Your task to perform on an android device: open chrome and create a bookmark for the current page Image 0: 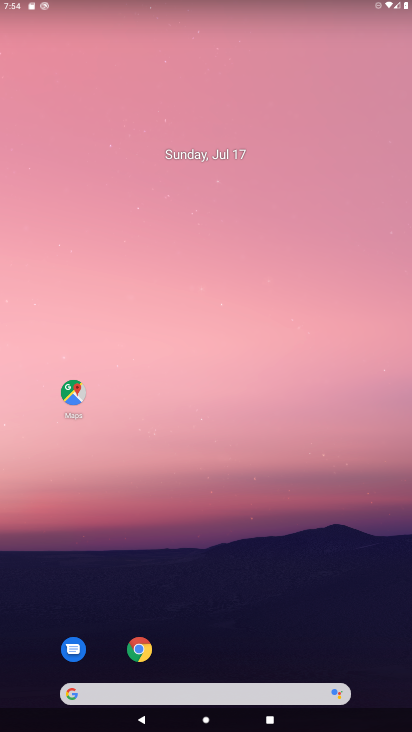
Step 0: drag from (188, 637) to (148, 222)
Your task to perform on an android device: open chrome and create a bookmark for the current page Image 1: 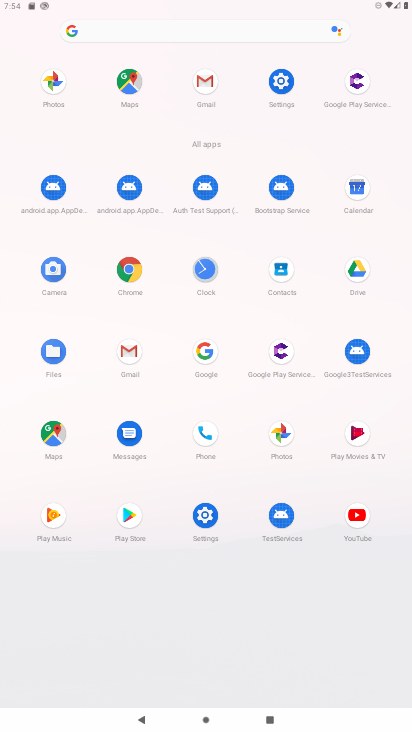
Step 1: click (131, 269)
Your task to perform on an android device: open chrome and create a bookmark for the current page Image 2: 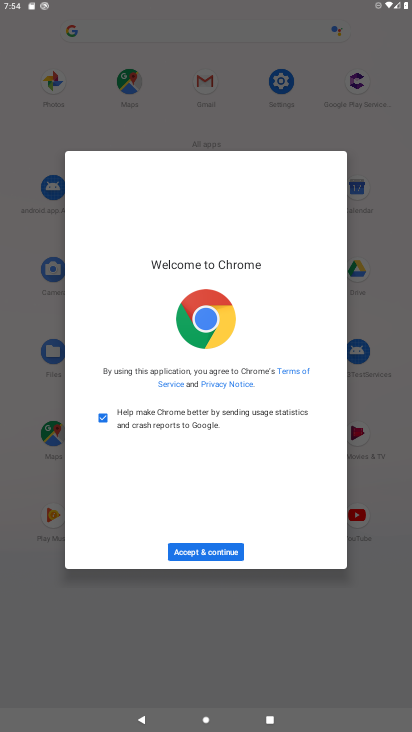
Step 2: click (229, 560)
Your task to perform on an android device: open chrome and create a bookmark for the current page Image 3: 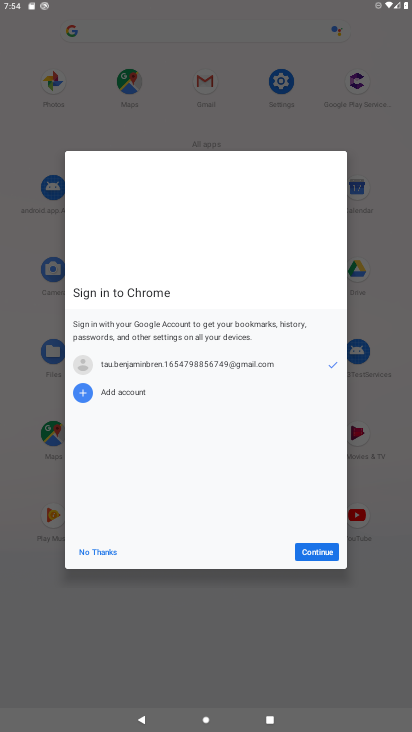
Step 3: click (310, 547)
Your task to perform on an android device: open chrome and create a bookmark for the current page Image 4: 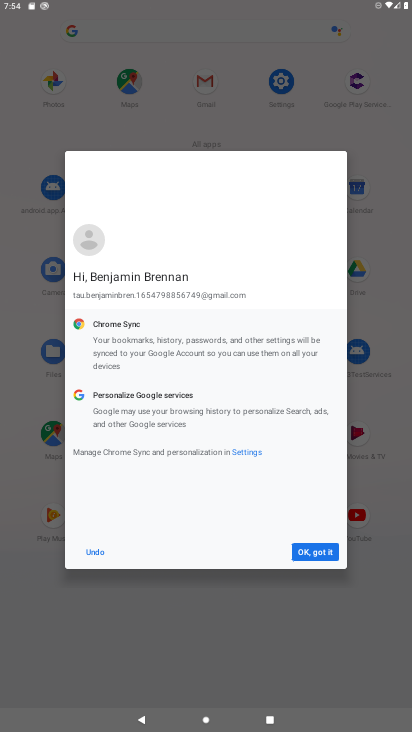
Step 4: click (325, 548)
Your task to perform on an android device: open chrome and create a bookmark for the current page Image 5: 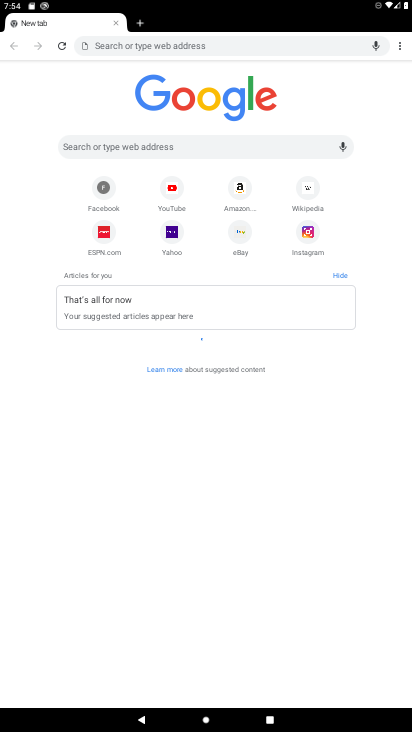
Step 5: drag from (399, 44) to (262, 232)
Your task to perform on an android device: open chrome and create a bookmark for the current page Image 6: 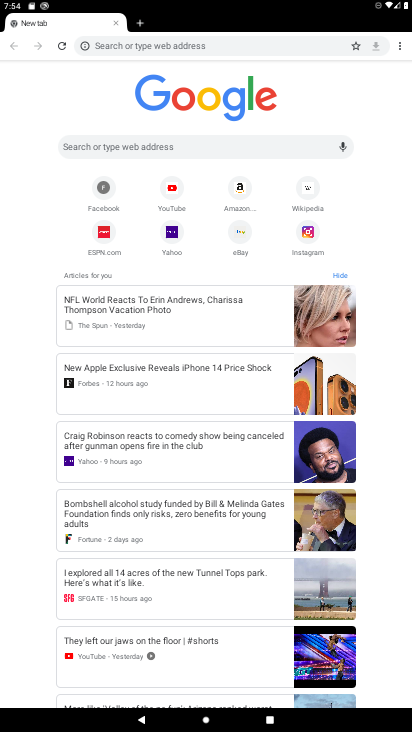
Step 6: click (232, 96)
Your task to perform on an android device: open chrome and create a bookmark for the current page Image 7: 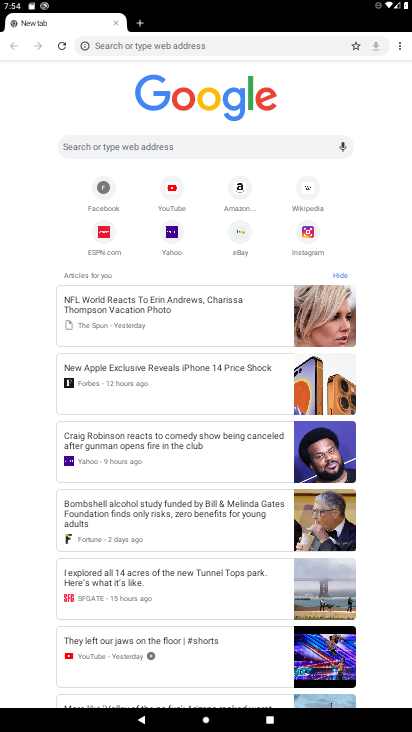
Step 7: click (355, 44)
Your task to perform on an android device: open chrome and create a bookmark for the current page Image 8: 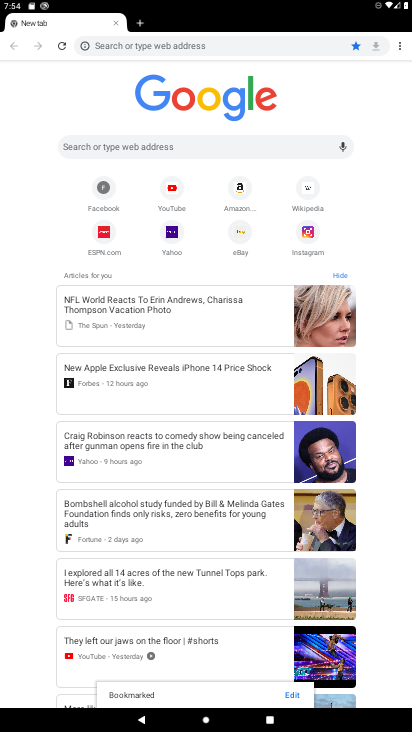
Step 8: task complete